Your task to perform on an android device: turn off location history Image 0: 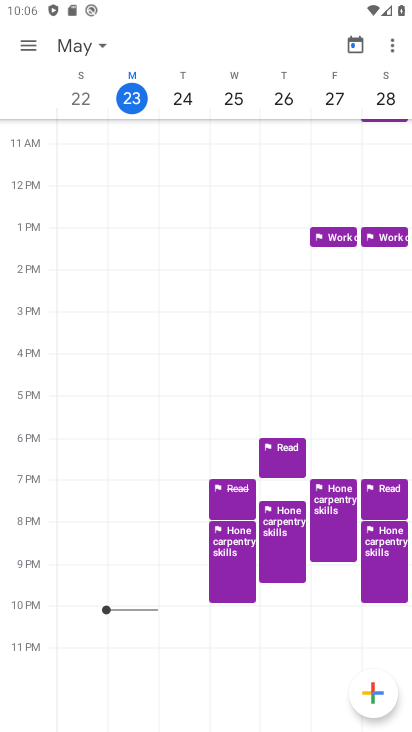
Step 0: press home button
Your task to perform on an android device: turn off location history Image 1: 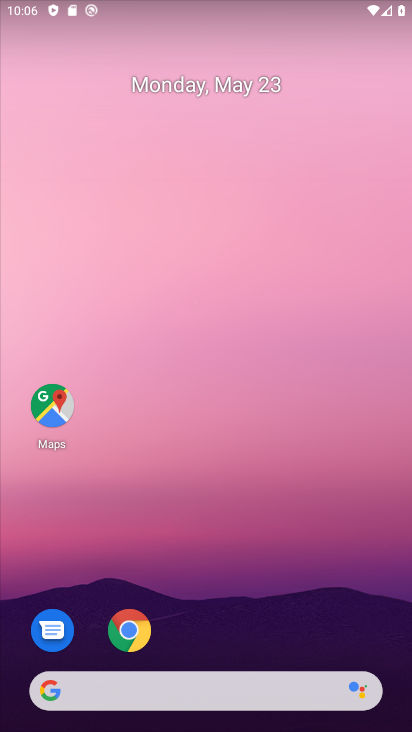
Step 1: click (49, 400)
Your task to perform on an android device: turn off location history Image 2: 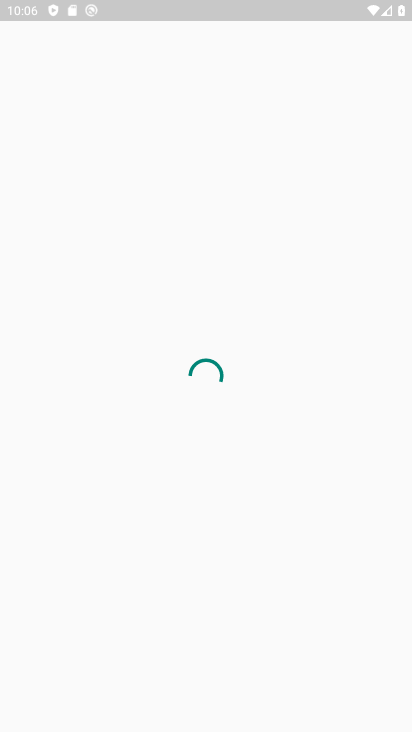
Step 2: click (27, 47)
Your task to perform on an android device: turn off location history Image 3: 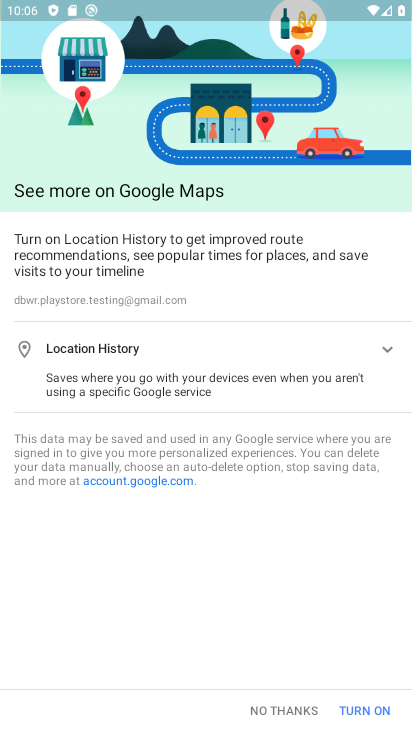
Step 3: click (267, 715)
Your task to perform on an android device: turn off location history Image 4: 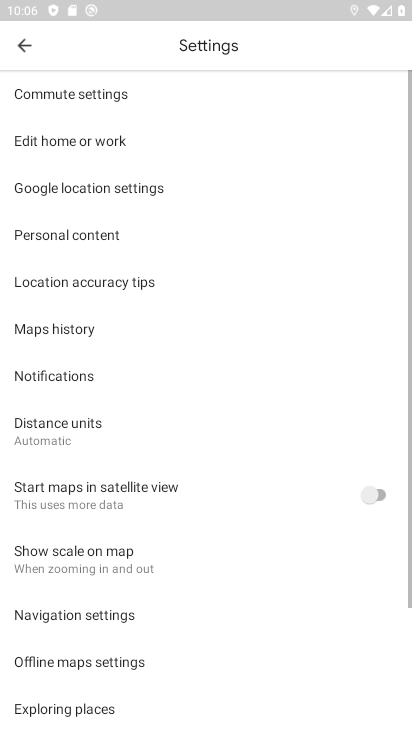
Step 4: click (22, 43)
Your task to perform on an android device: turn off location history Image 5: 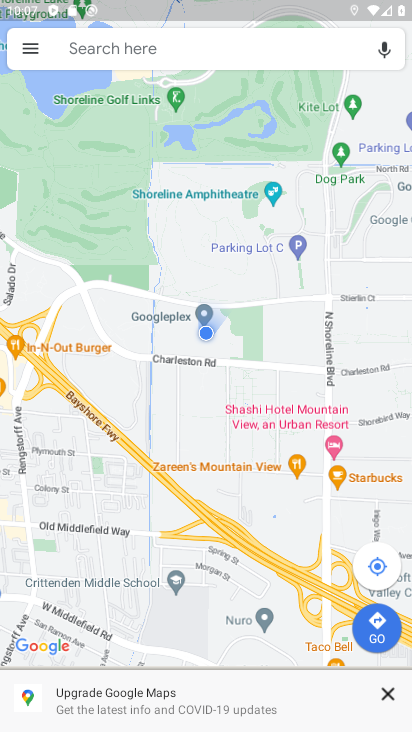
Step 5: click (29, 52)
Your task to perform on an android device: turn off location history Image 6: 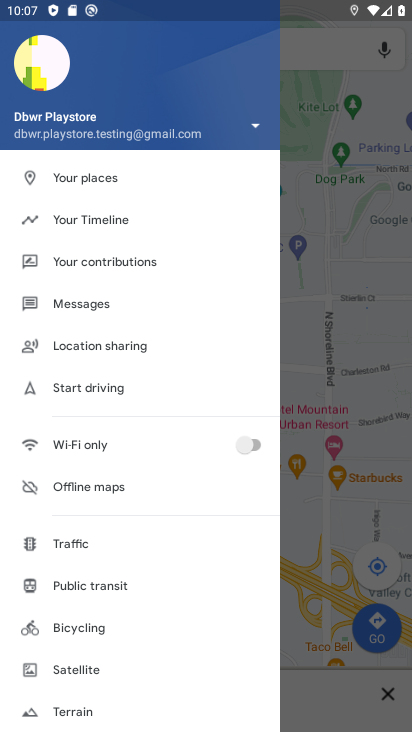
Step 6: click (86, 216)
Your task to perform on an android device: turn off location history Image 7: 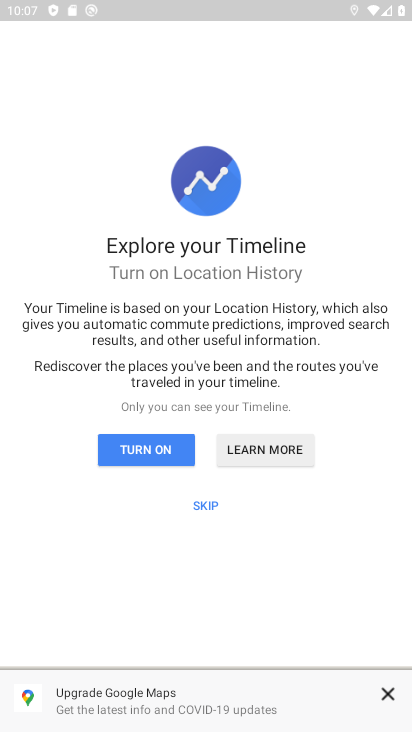
Step 7: click (209, 504)
Your task to perform on an android device: turn off location history Image 8: 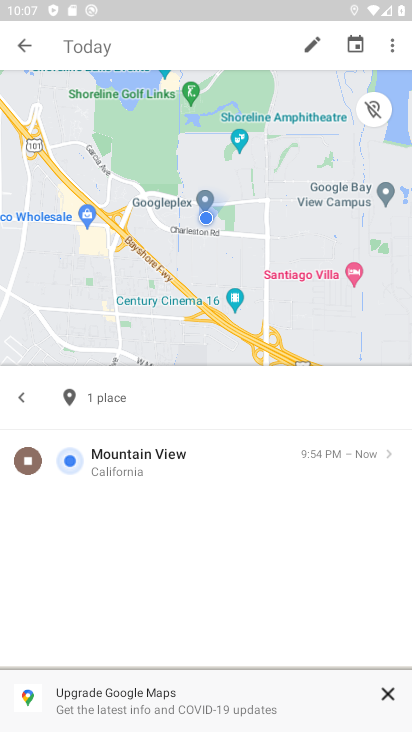
Step 8: click (396, 46)
Your task to perform on an android device: turn off location history Image 9: 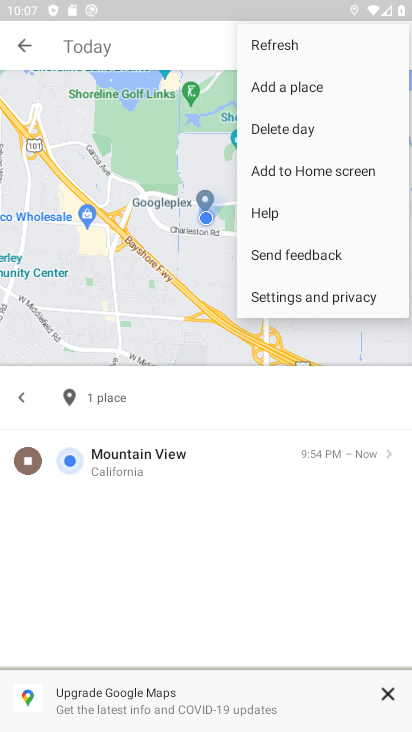
Step 9: click (275, 300)
Your task to perform on an android device: turn off location history Image 10: 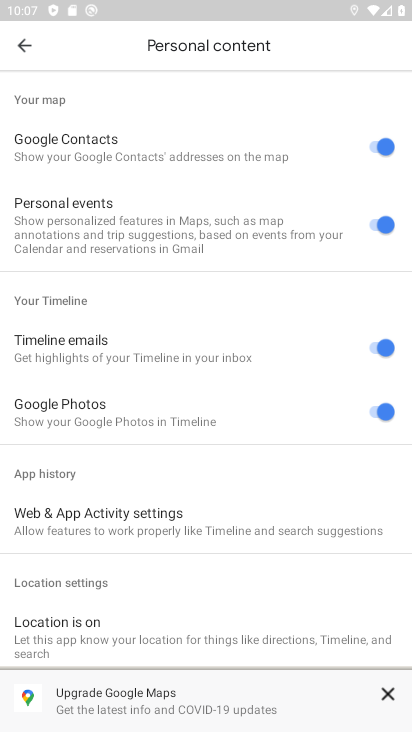
Step 10: drag from (155, 537) to (179, 165)
Your task to perform on an android device: turn off location history Image 11: 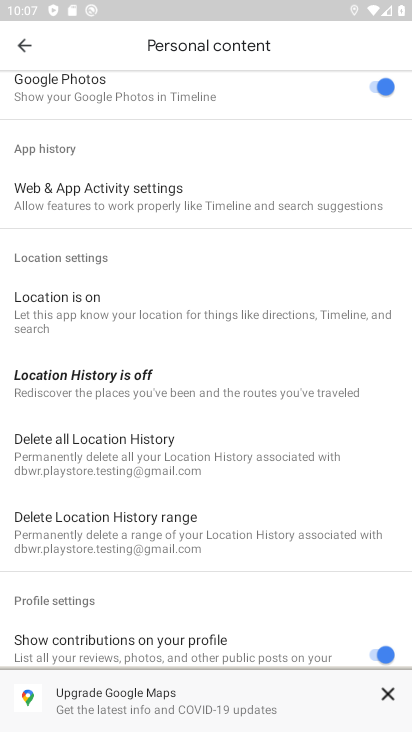
Step 11: click (90, 374)
Your task to perform on an android device: turn off location history Image 12: 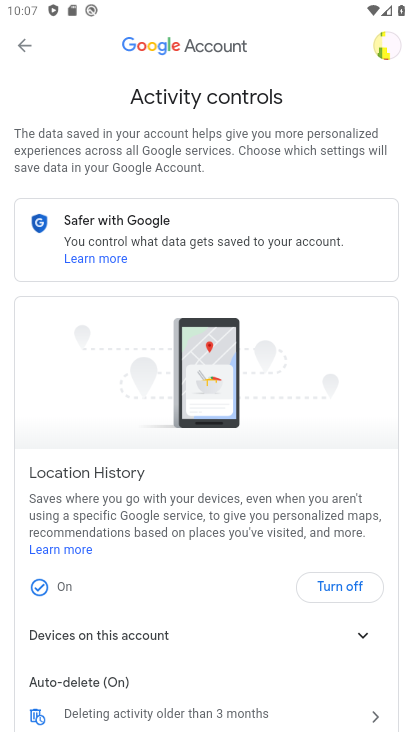
Step 12: click (324, 586)
Your task to perform on an android device: turn off location history Image 13: 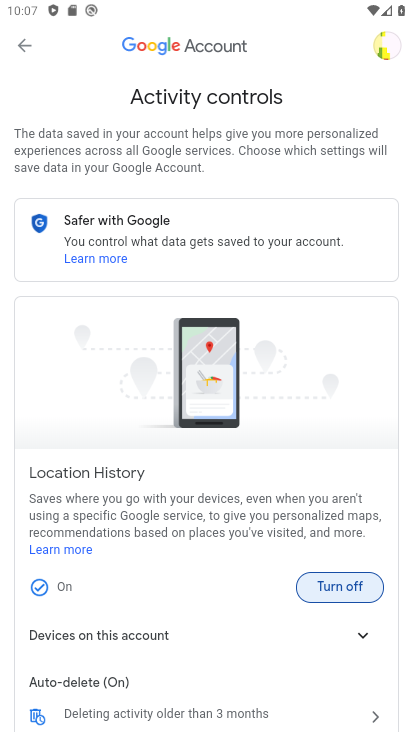
Step 13: click (324, 586)
Your task to perform on an android device: turn off location history Image 14: 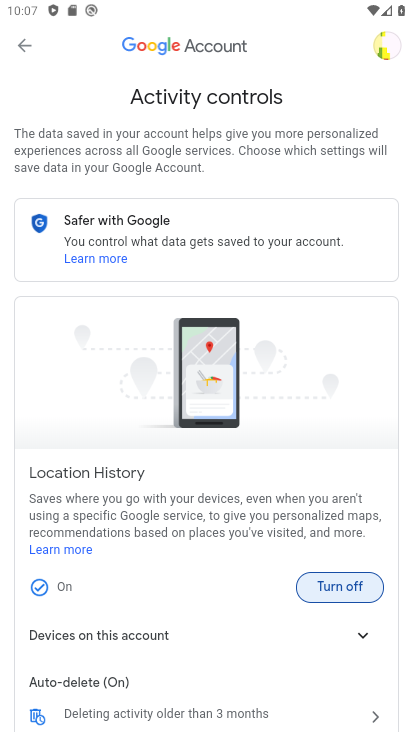
Step 14: click (340, 588)
Your task to perform on an android device: turn off location history Image 15: 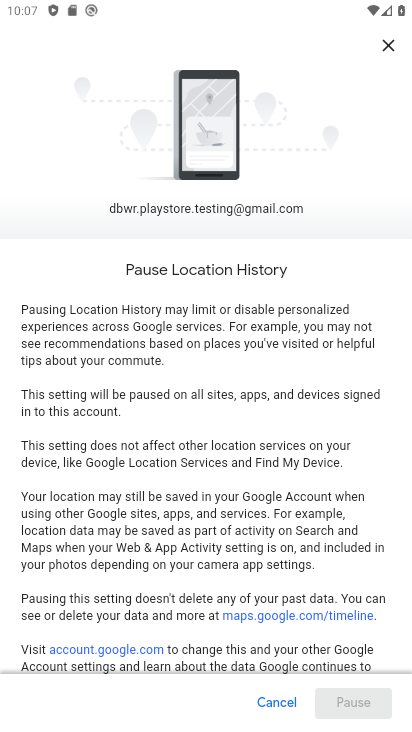
Step 15: drag from (197, 616) to (233, 94)
Your task to perform on an android device: turn off location history Image 16: 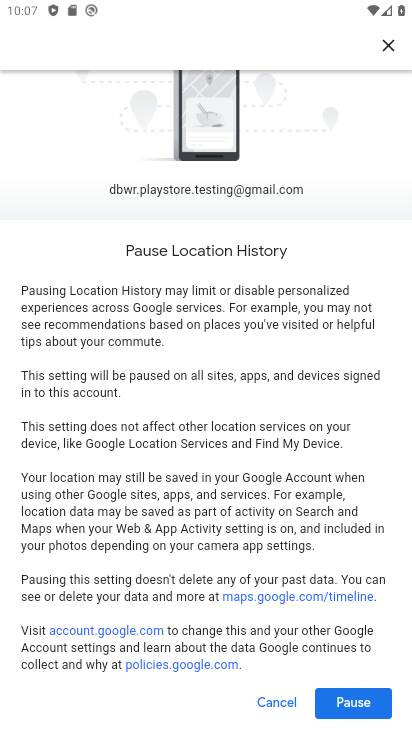
Step 16: click (335, 702)
Your task to perform on an android device: turn off location history Image 17: 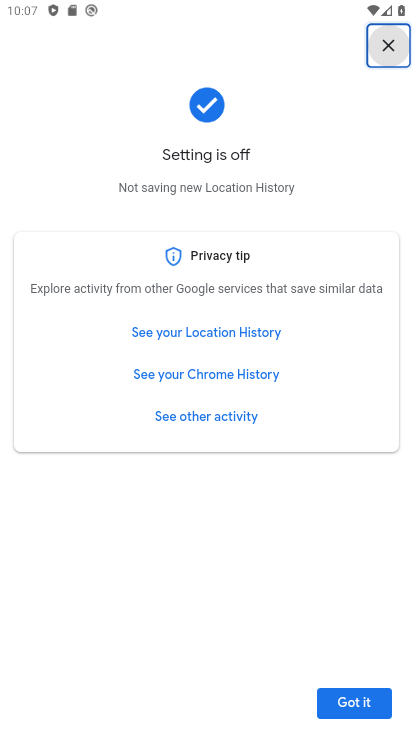
Step 17: click (345, 707)
Your task to perform on an android device: turn off location history Image 18: 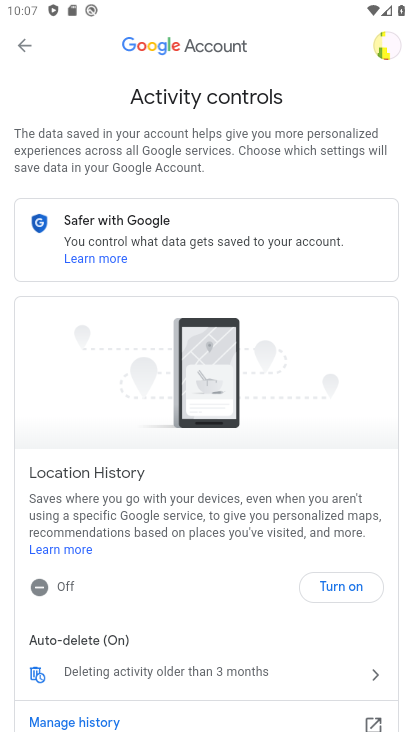
Step 18: task complete